Your task to perform on an android device: Open Google Image 0: 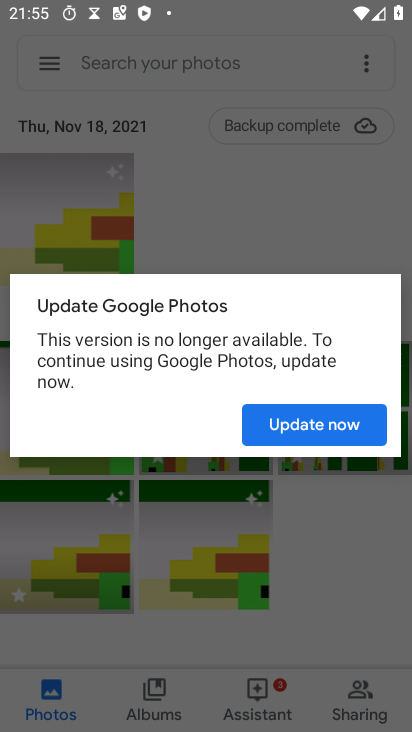
Step 0: press home button
Your task to perform on an android device: Open Google Image 1: 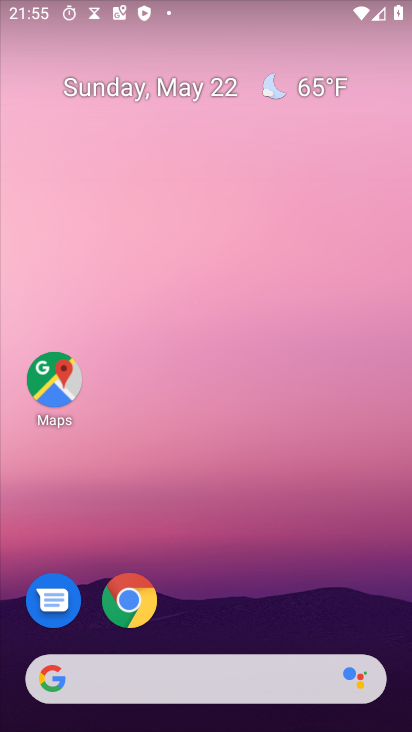
Step 1: click (162, 677)
Your task to perform on an android device: Open Google Image 2: 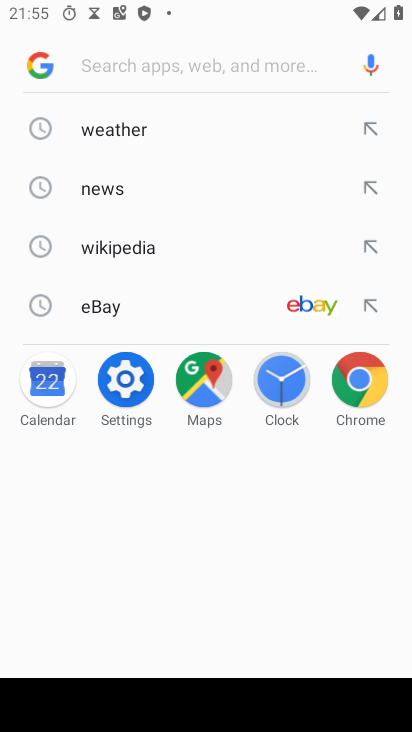
Step 2: click (41, 73)
Your task to perform on an android device: Open Google Image 3: 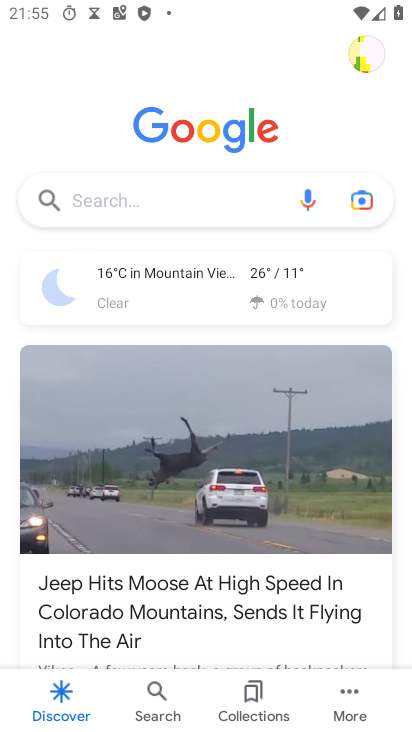
Step 3: task complete